Your task to perform on an android device: Search for rayovac triple a on walmart, select the first entry, add it to the cart, then select checkout. Image 0: 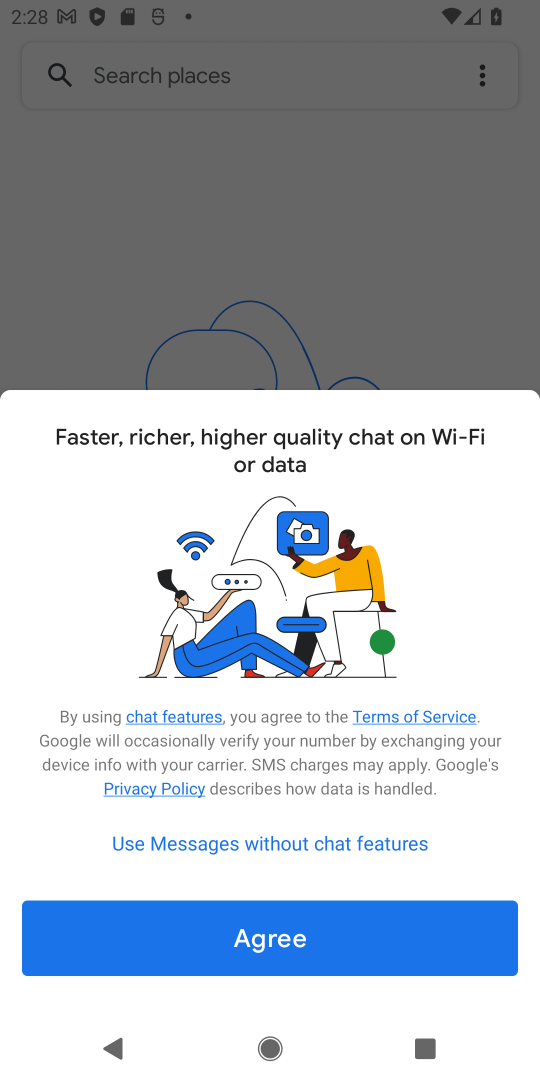
Step 0: press home button
Your task to perform on an android device: Search for rayovac triple a on walmart, select the first entry, add it to the cart, then select checkout. Image 1: 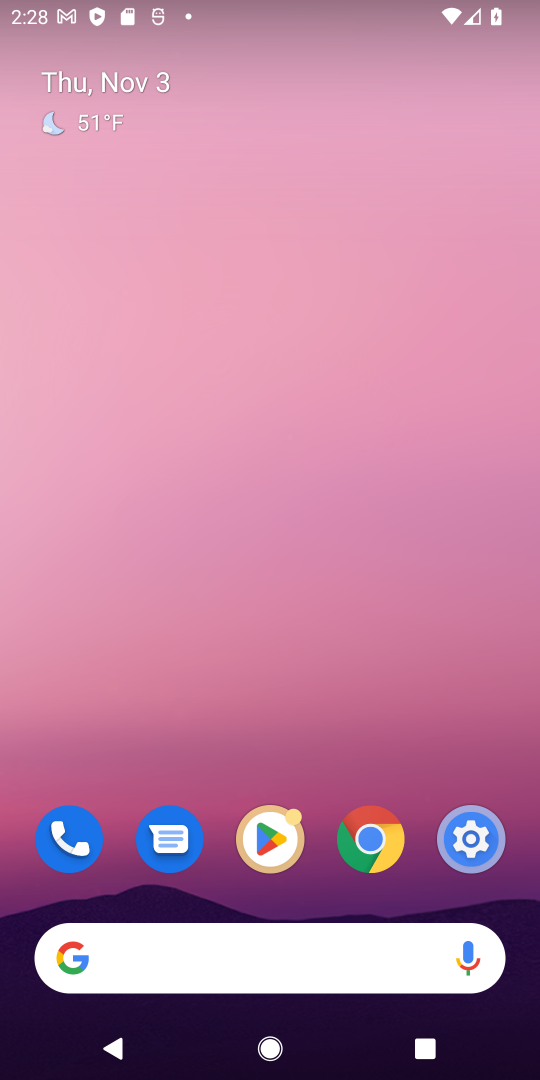
Step 1: click (231, 979)
Your task to perform on an android device: Search for rayovac triple a on walmart, select the first entry, add it to the cart, then select checkout. Image 2: 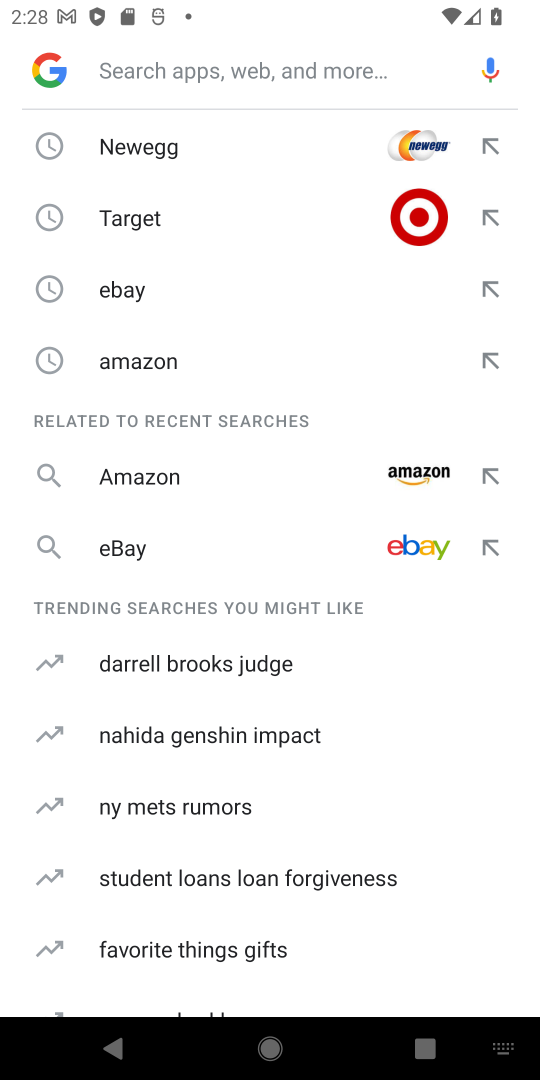
Step 2: type "walmart"
Your task to perform on an android device: Search for rayovac triple a on walmart, select the first entry, add it to the cart, then select checkout. Image 3: 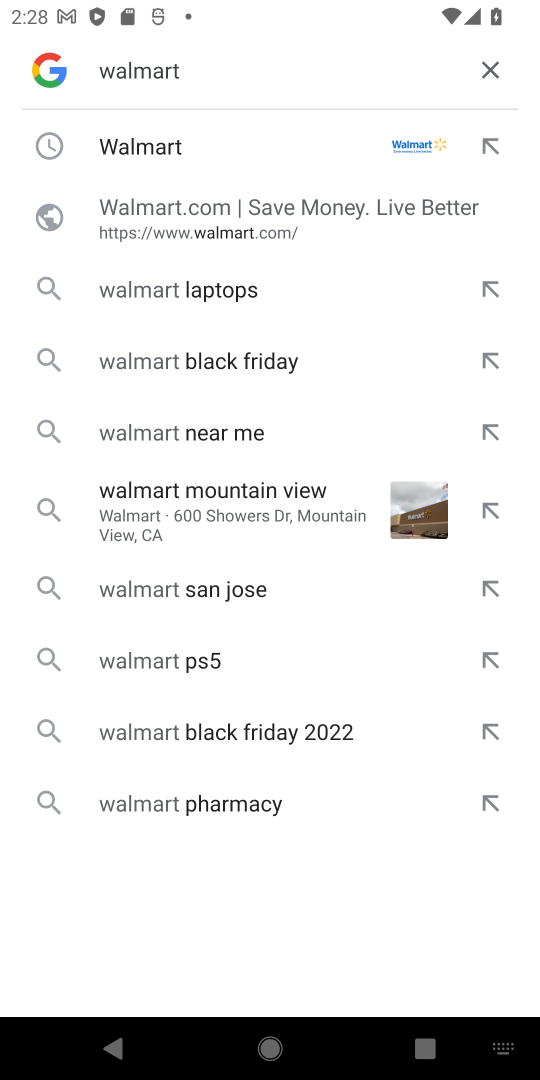
Step 3: click (180, 152)
Your task to perform on an android device: Search for rayovac triple a on walmart, select the first entry, add it to the cart, then select checkout. Image 4: 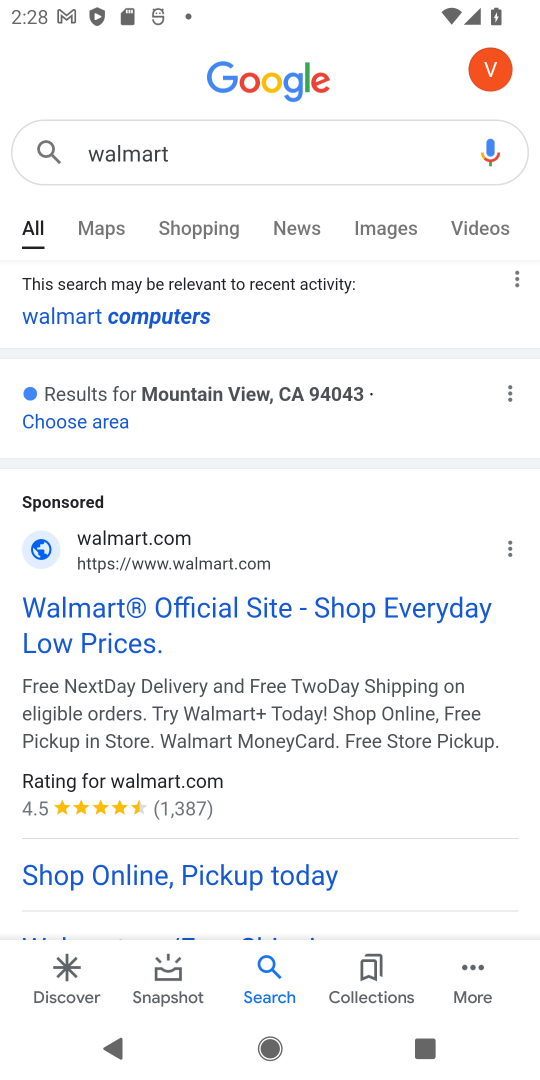
Step 4: click (96, 614)
Your task to perform on an android device: Search for rayovac triple a on walmart, select the first entry, add it to the cart, then select checkout. Image 5: 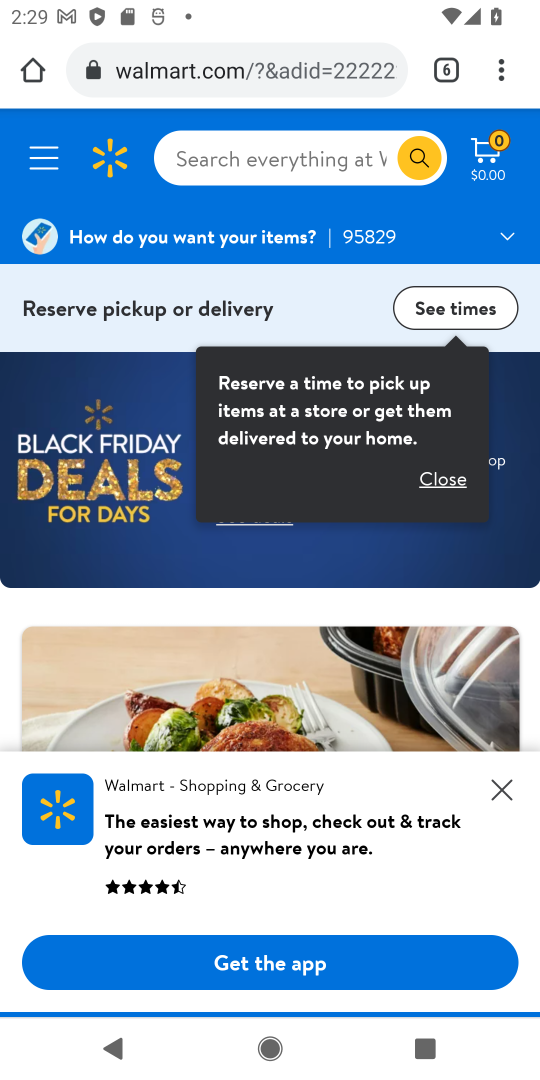
Step 5: click (493, 795)
Your task to perform on an android device: Search for rayovac triple a on walmart, select the first entry, add it to the cart, then select checkout. Image 6: 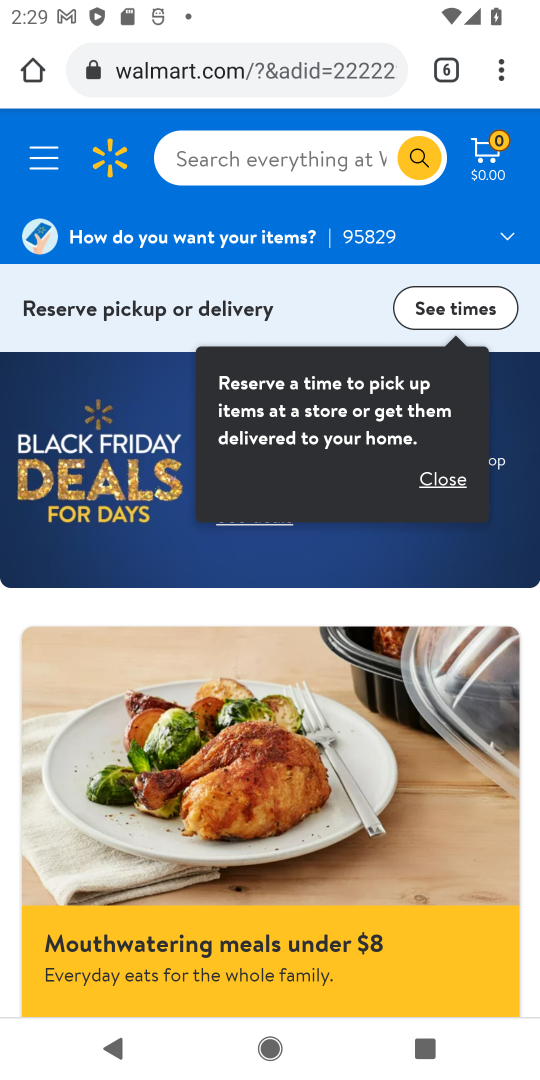
Step 6: task complete